Your task to perform on an android device: toggle data saver in the chrome app Image 0: 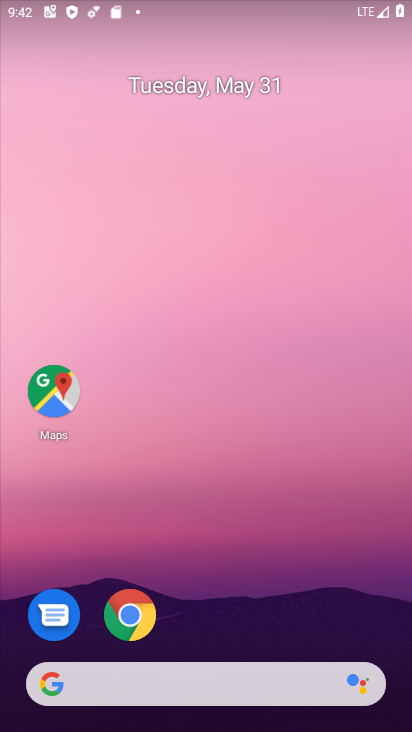
Step 0: drag from (264, 611) to (359, 21)
Your task to perform on an android device: toggle data saver in the chrome app Image 1: 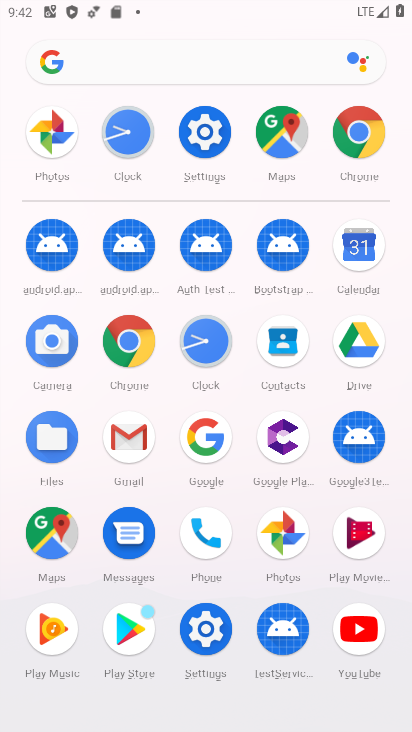
Step 1: click (388, 139)
Your task to perform on an android device: toggle data saver in the chrome app Image 2: 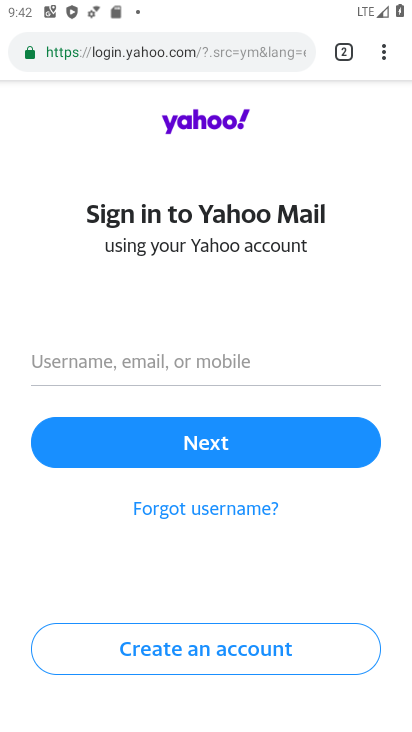
Step 2: drag from (395, 44) to (198, 574)
Your task to perform on an android device: toggle data saver in the chrome app Image 3: 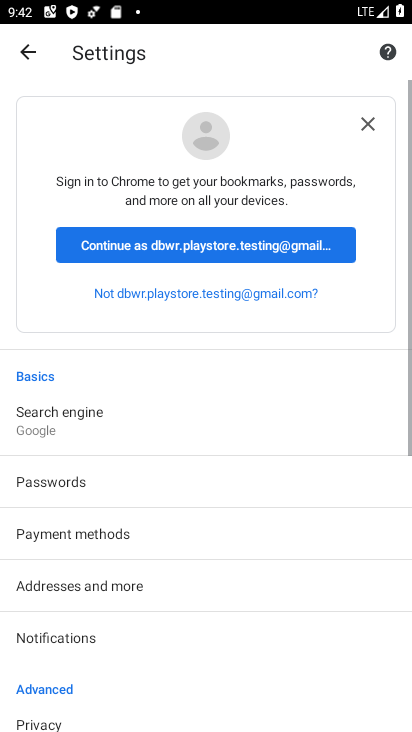
Step 3: drag from (186, 595) to (246, 159)
Your task to perform on an android device: toggle data saver in the chrome app Image 4: 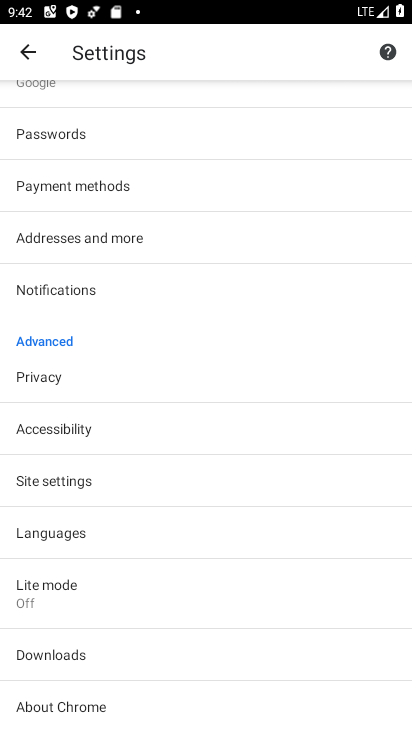
Step 4: click (102, 565)
Your task to perform on an android device: toggle data saver in the chrome app Image 5: 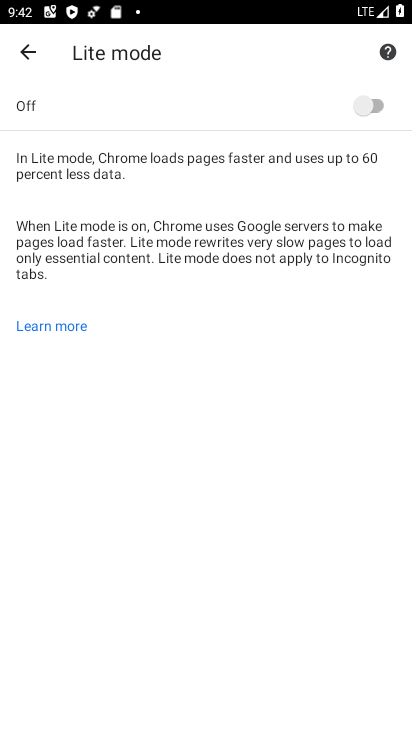
Step 5: click (367, 102)
Your task to perform on an android device: toggle data saver in the chrome app Image 6: 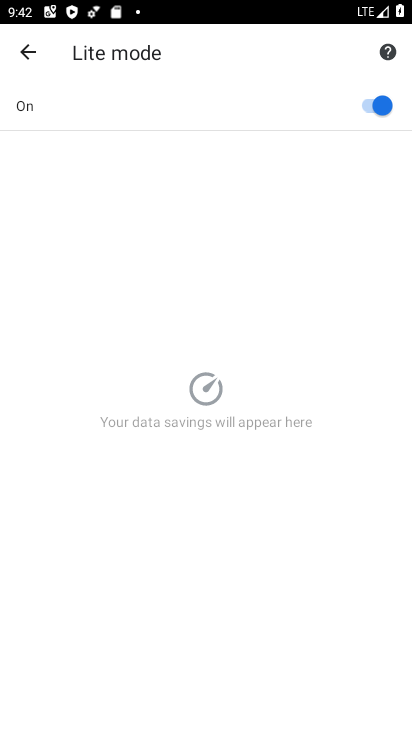
Step 6: task complete